Your task to perform on an android device: read, delete, or share a saved page in the chrome app Image 0: 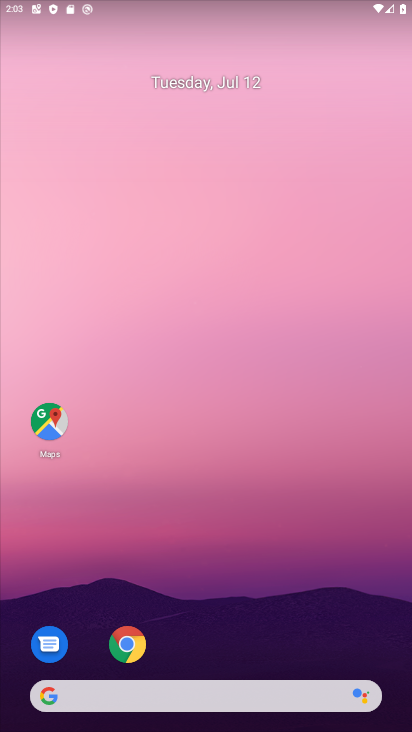
Step 0: click (130, 660)
Your task to perform on an android device: read, delete, or share a saved page in the chrome app Image 1: 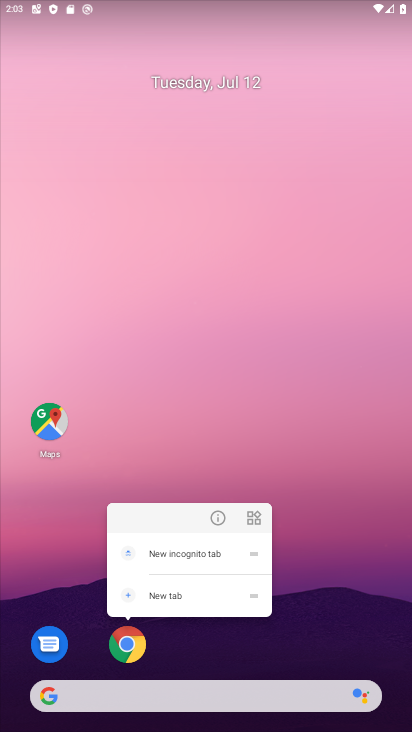
Step 1: click (121, 640)
Your task to perform on an android device: read, delete, or share a saved page in the chrome app Image 2: 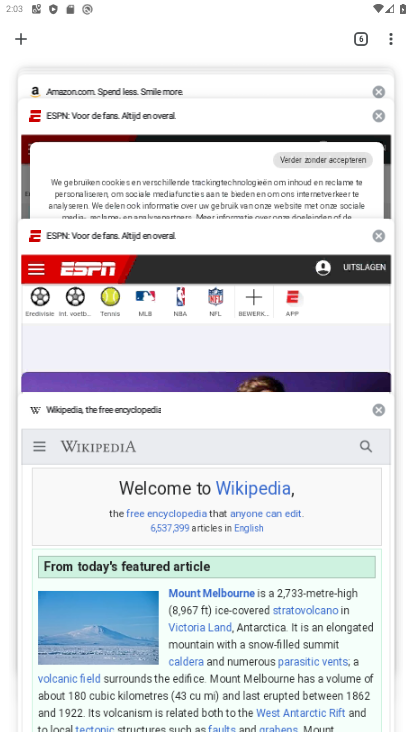
Step 2: click (386, 35)
Your task to perform on an android device: read, delete, or share a saved page in the chrome app Image 3: 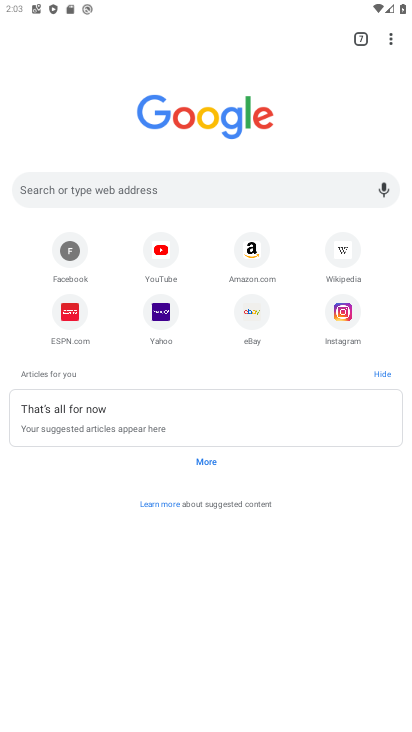
Step 3: task complete